Your task to perform on an android device: Open Maps and search for coffee Image 0: 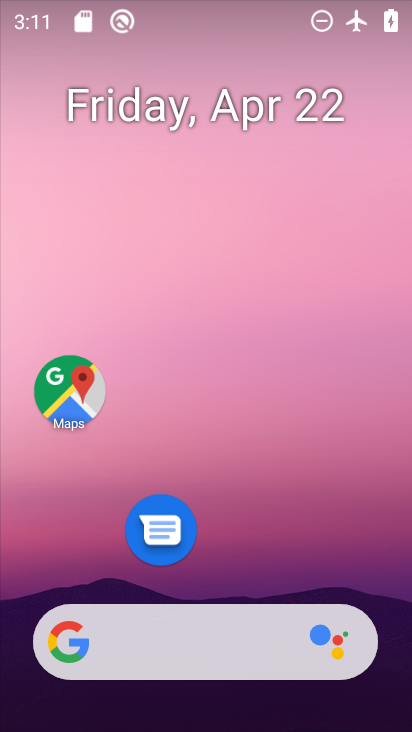
Step 0: click (232, 568)
Your task to perform on an android device: Open Maps and search for coffee Image 1: 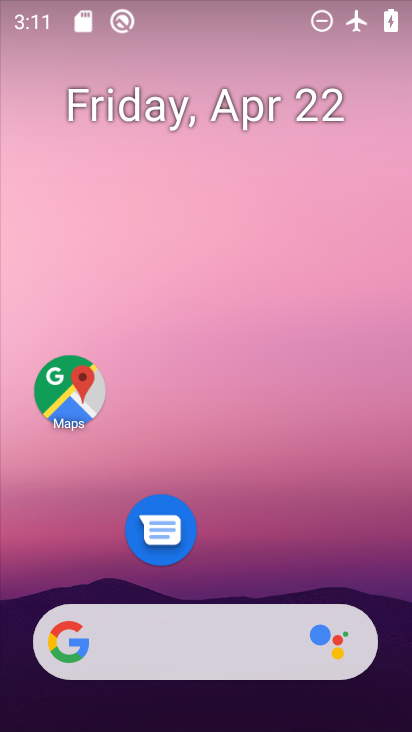
Step 1: click (65, 390)
Your task to perform on an android device: Open Maps and search for coffee Image 2: 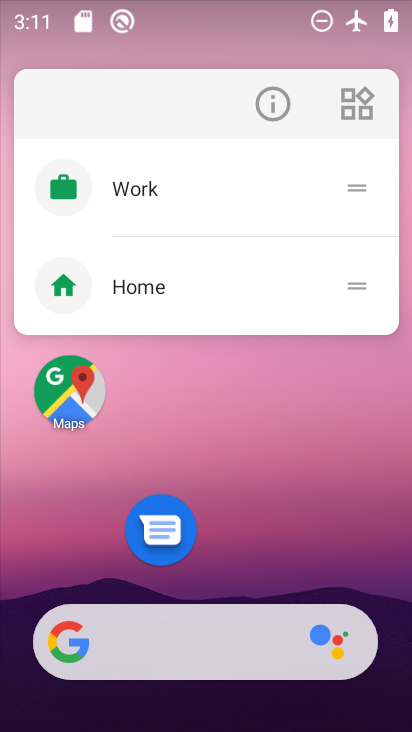
Step 2: click (57, 404)
Your task to perform on an android device: Open Maps and search for coffee Image 3: 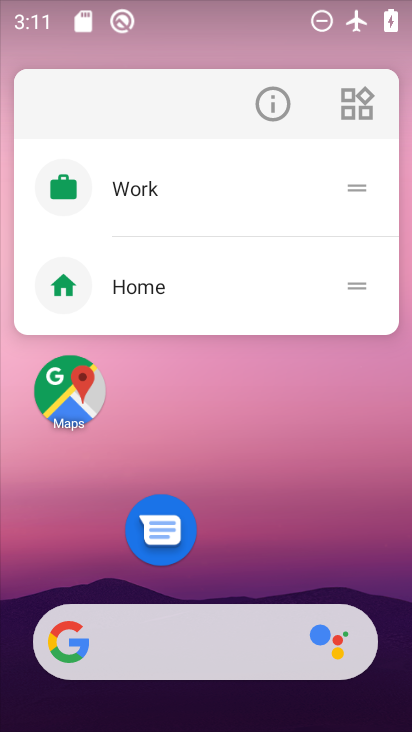
Step 3: click (56, 394)
Your task to perform on an android device: Open Maps and search for coffee Image 4: 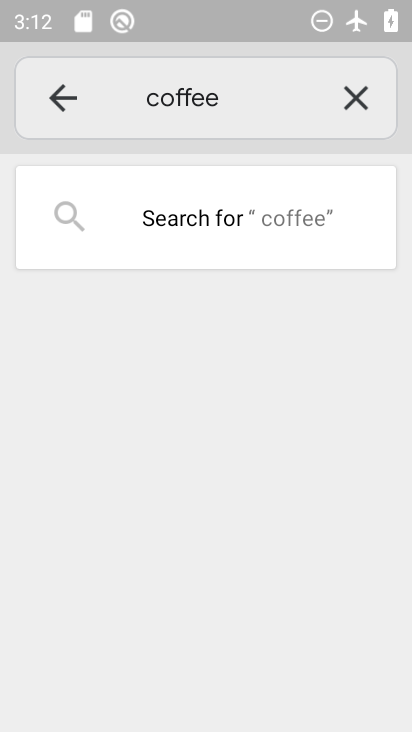
Step 4: task complete